Your task to perform on an android device: see creations saved in the google photos Image 0: 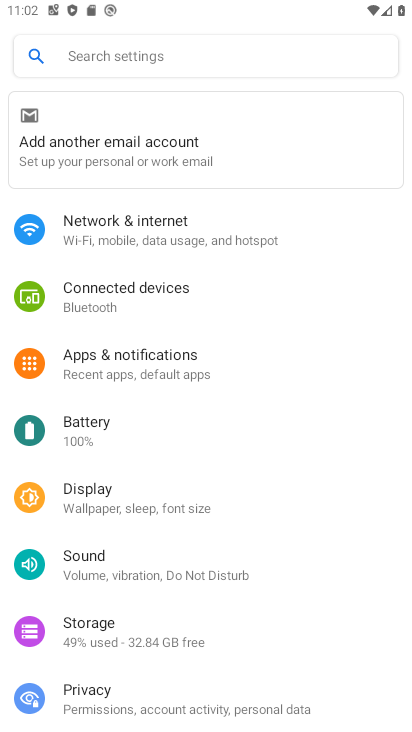
Step 0: press home button
Your task to perform on an android device: see creations saved in the google photos Image 1: 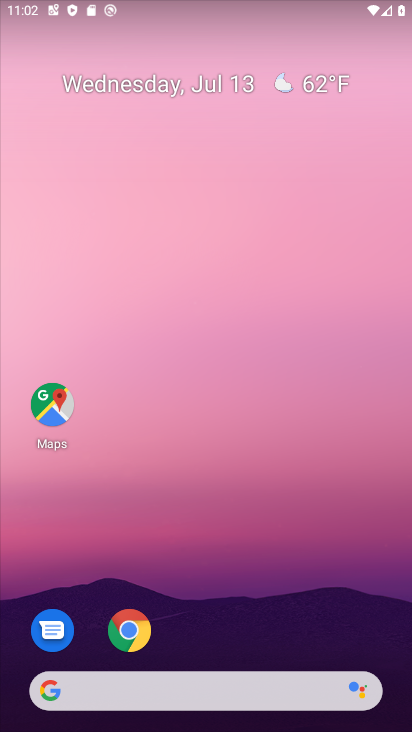
Step 1: drag from (254, 639) to (302, 2)
Your task to perform on an android device: see creations saved in the google photos Image 2: 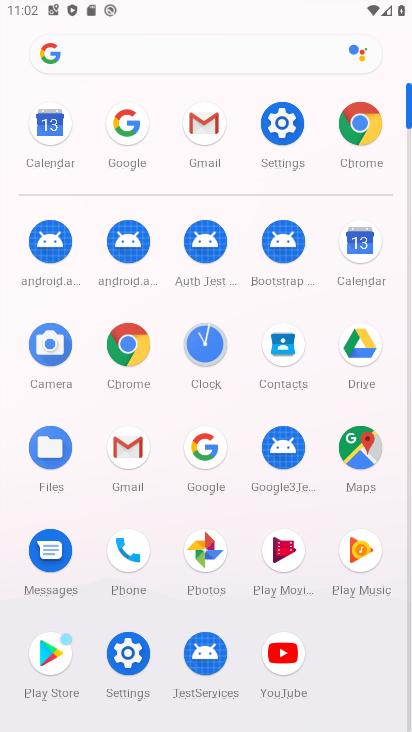
Step 2: click (224, 558)
Your task to perform on an android device: see creations saved in the google photos Image 3: 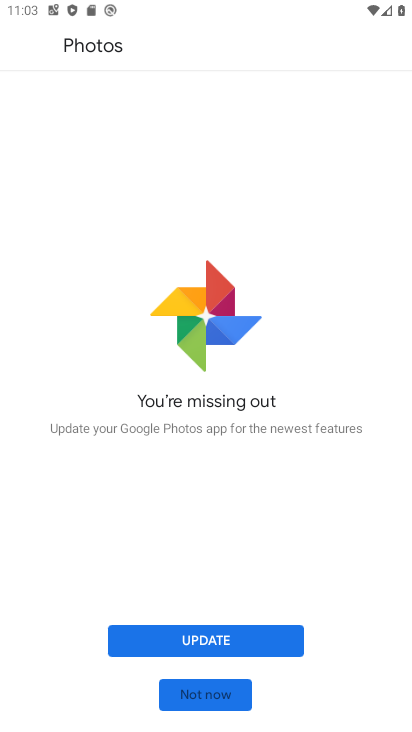
Step 3: click (224, 650)
Your task to perform on an android device: see creations saved in the google photos Image 4: 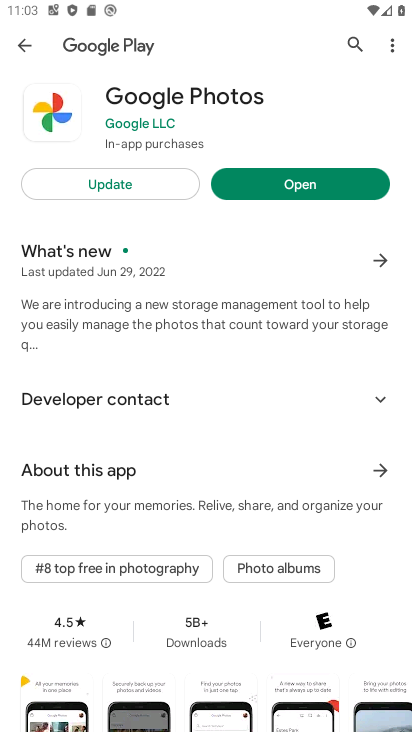
Step 4: click (76, 184)
Your task to perform on an android device: see creations saved in the google photos Image 5: 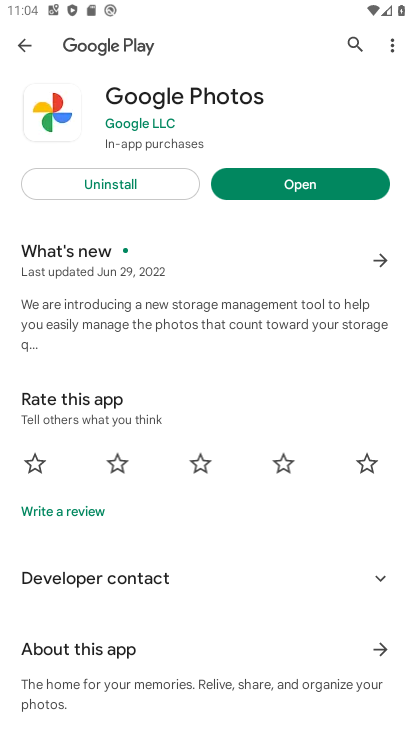
Step 5: click (299, 182)
Your task to perform on an android device: see creations saved in the google photos Image 6: 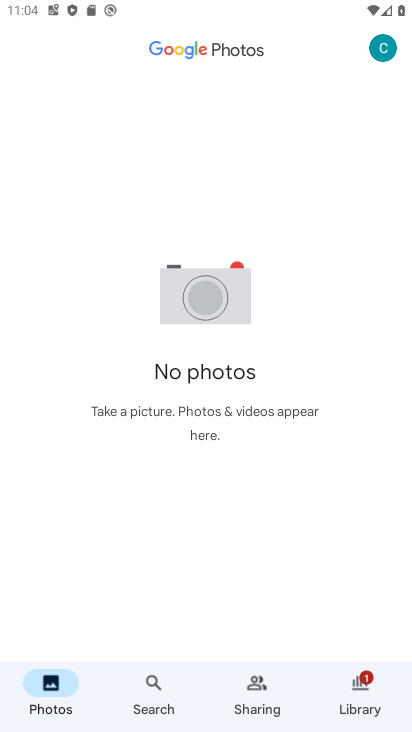
Step 6: task complete